Your task to perform on an android device: check out phone information Image 0: 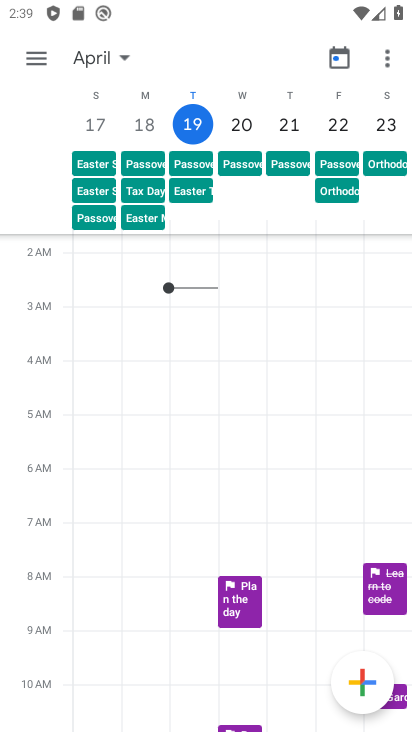
Step 0: press home button
Your task to perform on an android device: check out phone information Image 1: 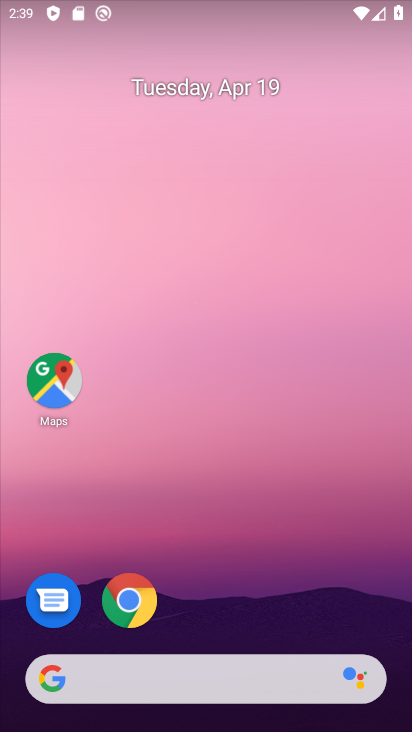
Step 1: drag from (328, 614) to (279, 111)
Your task to perform on an android device: check out phone information Image 2: 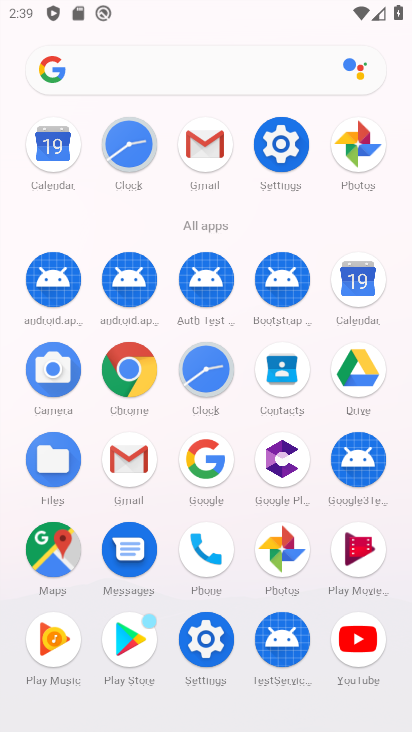
Step 2: click (205, 639)
Your task to perform on an android device: check out phone information Image 3: 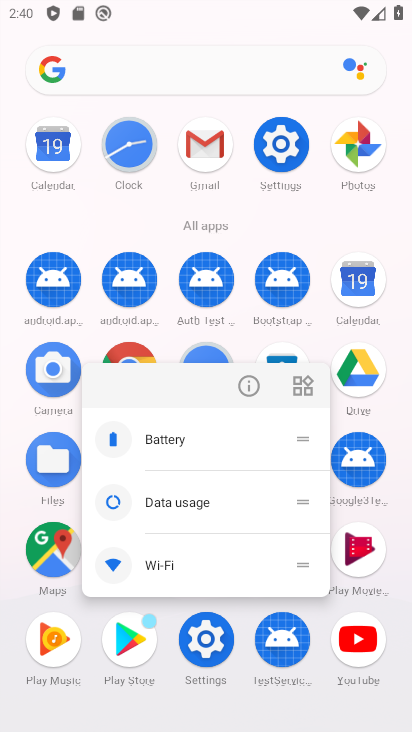
Step 3: click (209, 641)
Your task to perform on an android device: check out phone information Image 4: 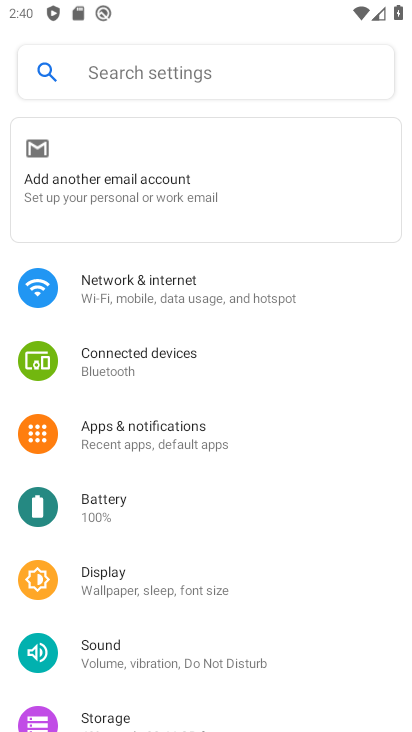
Step 4: drag from (245, 637) to (344, 224)
Your task to perform on an android device: check out phone information Image 5: 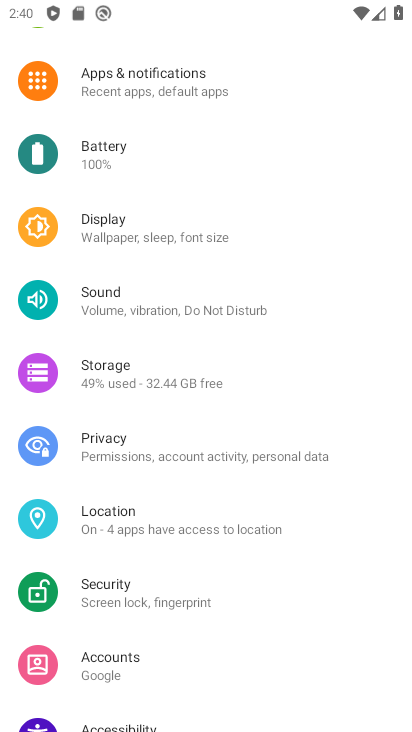
Step 5: drag from (319, 582) to (361, 207)
Your task to perform on an android device: check out phone information Image 6: 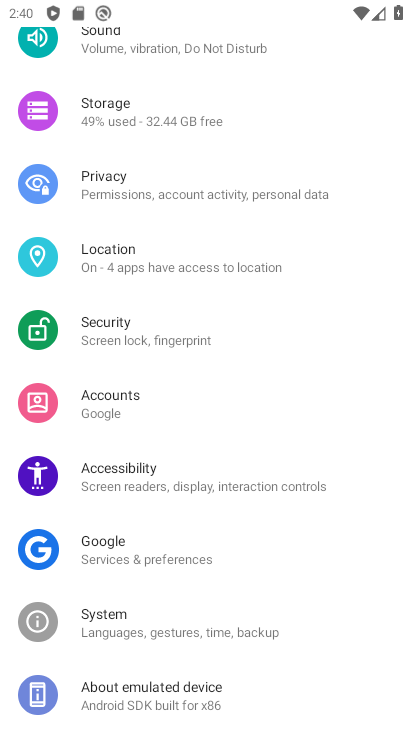
Step 6: drag from (302, 610) to (365, 240)
Your task to perform on an android device: check out phone information Image 7: 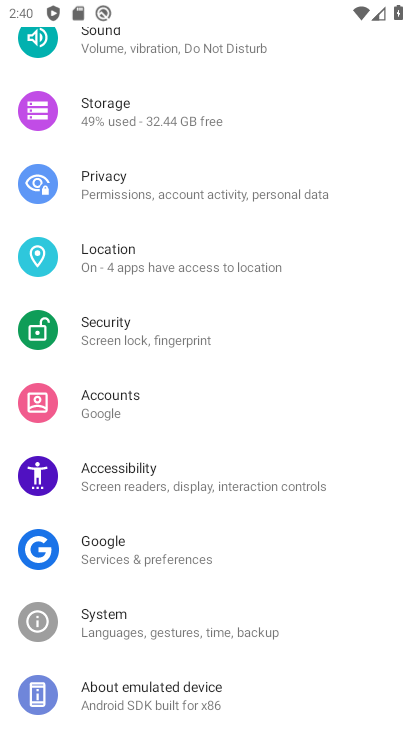
Step 7: click (134, 683)
Your task to perform on an android device: check out phone information Image 8: 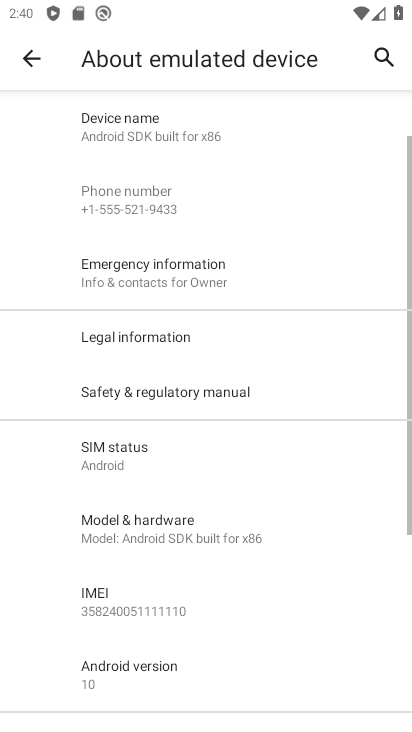
Step 8: task complete